Your task to perform on an android device: turn on location history Image 0: 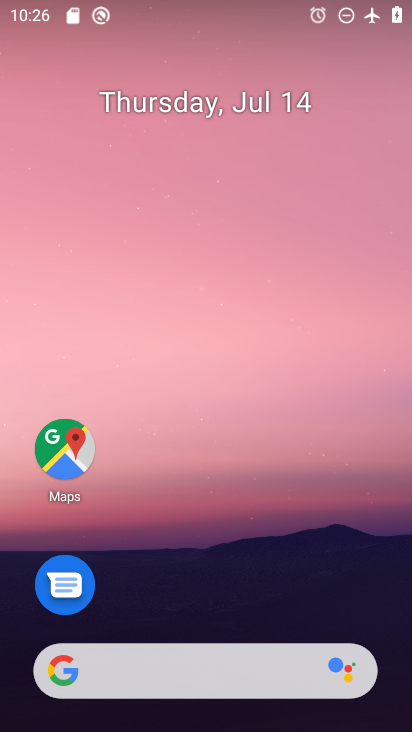
Step 0: drag from (235, 631) to (147, 32)
Your task to perform on an android device: turn on location history Image 1: 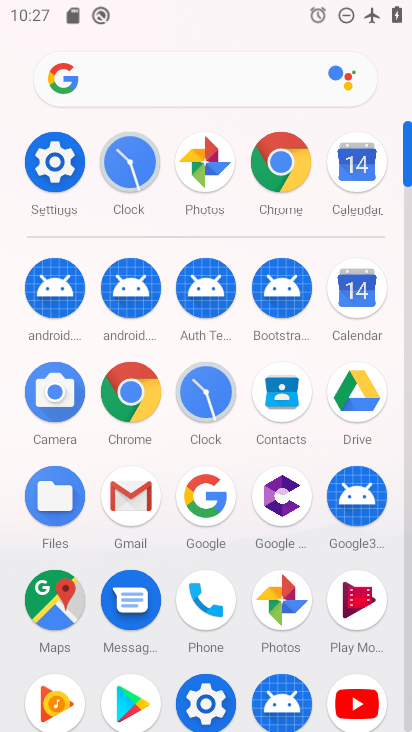
Step 1: click (199, 678)
Your task to perform on an android device: turn on location history Image 2: 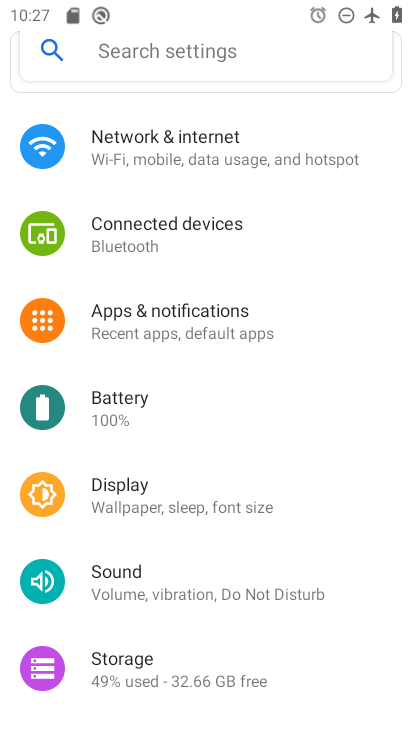
Step 2: drag from (167, 493) to (48, 108)
Your task to perform on an android device: turn on location history Image 3: 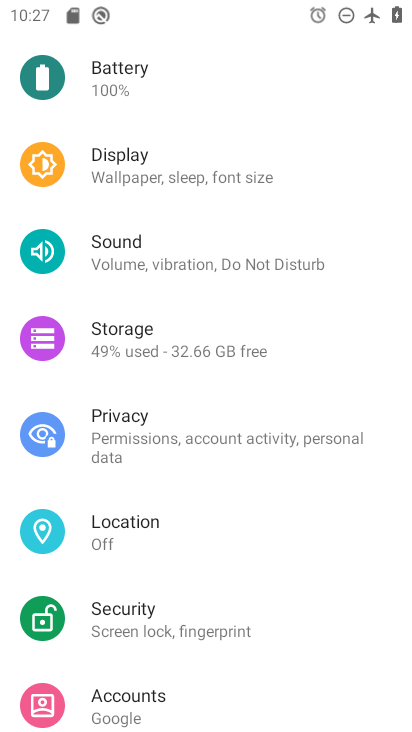
Step 3: click (129, 526)
Your task to perform on an android device: turn on location history Image 4: 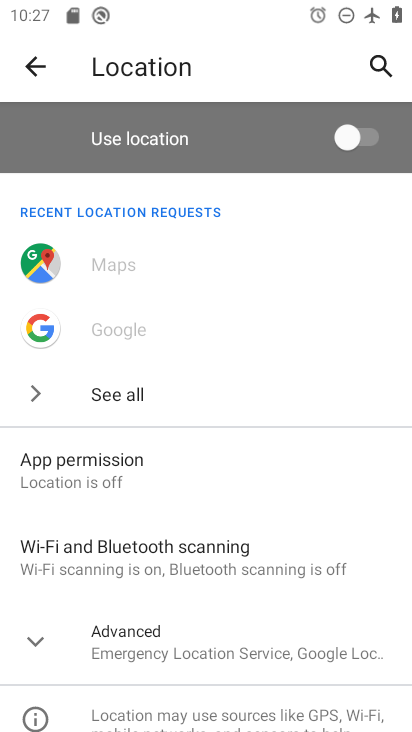
Step 4: click (137, 659)
Your task to perform on an android device: turn on location history Image 5: 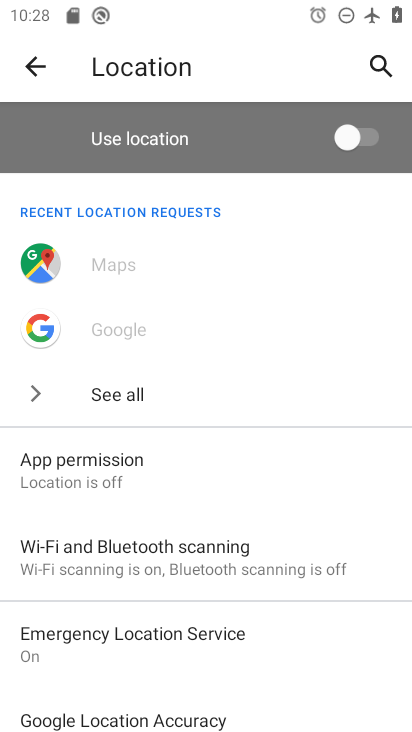
Step 5: drag from (186, 590) to (80, 268)
Your task to perform on an android device: turn on location history Image 6: 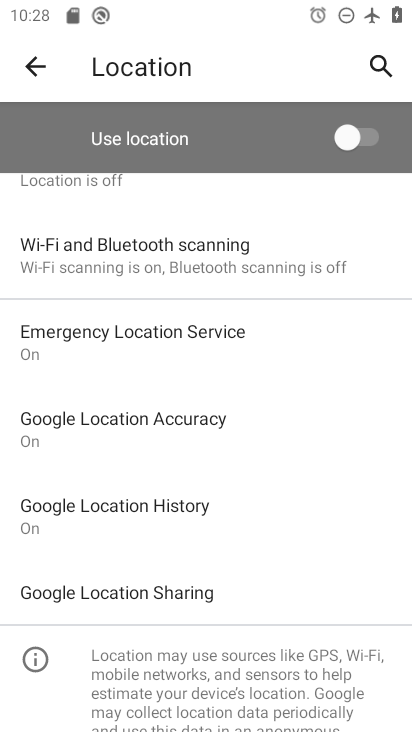
Step 6: click (132, 492)
Your task to perform on an android device: turn on location history Image 7: 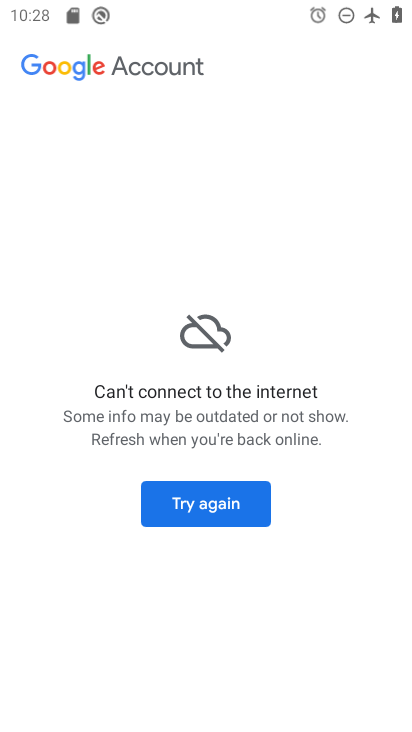
Step 7: click (210, 518)
Your task to perform on an android device: turn on location history Image 8: 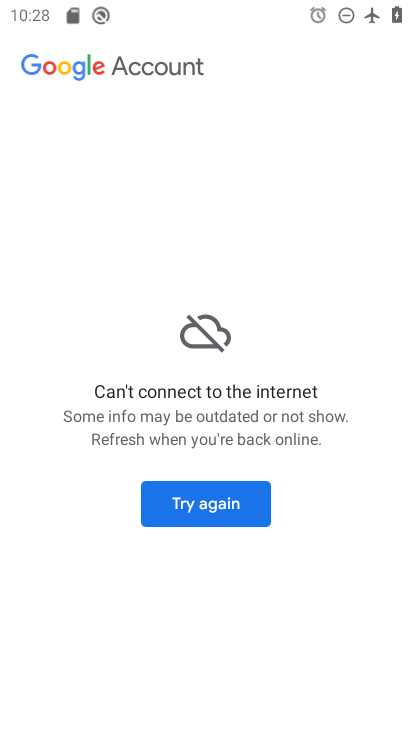
Step 8: task complete